Your task to perform on an android device: turn on notifications settings in the gmail app Image 0: 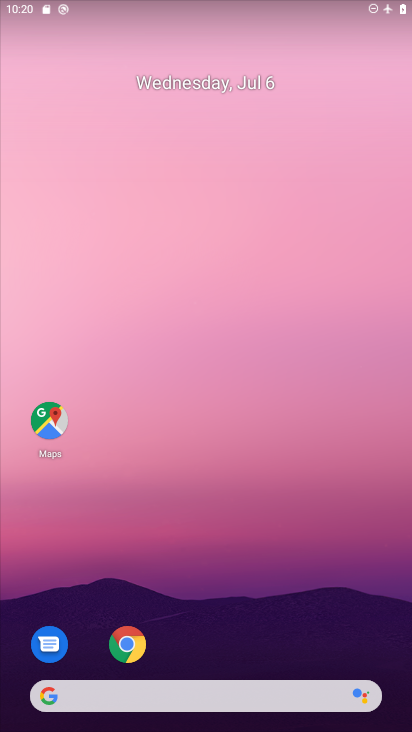
Step 0: drag from (206, 602) to (210, 200)
Your task to perform on an android device: turn on notifications settings in the gmail app Image 1: 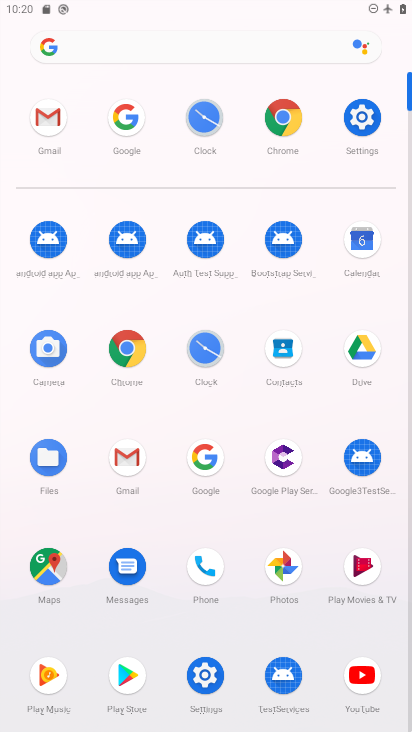
Step 1: click (137, 474)
Your task to perform on an android device: turn on notifications settings in the gmail app Image 2: 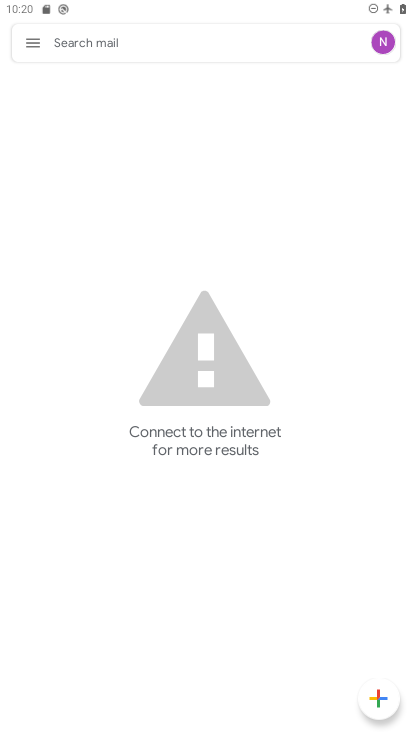
Step 2: click (33, 43)
Your task to perform on an android device: turn on notifications settings in the gmail app Image 3: 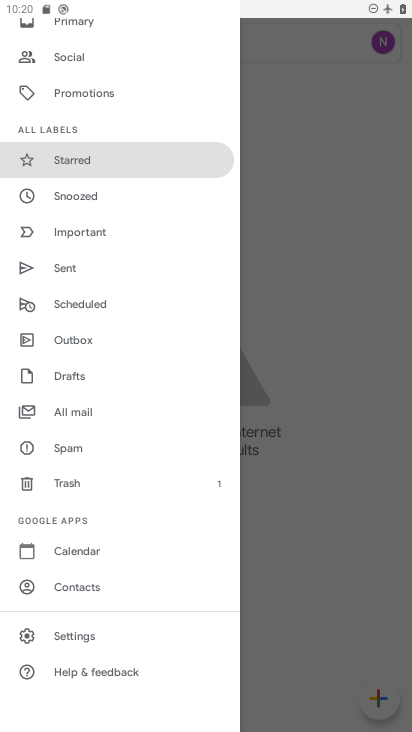
Step 3: click (73, 622)
Your task to perform on an android device: turn on notifications settings in the gmail app Image 4: 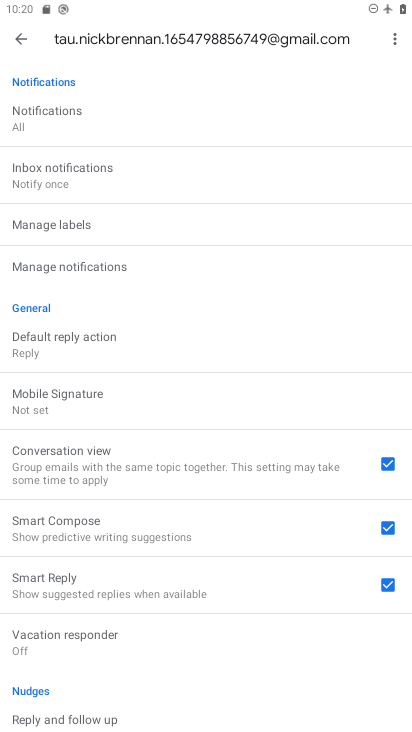
Step 4: click (156, 272)
Your task to perform on an android device: turn on notifications settings in the gmail app Image 5: 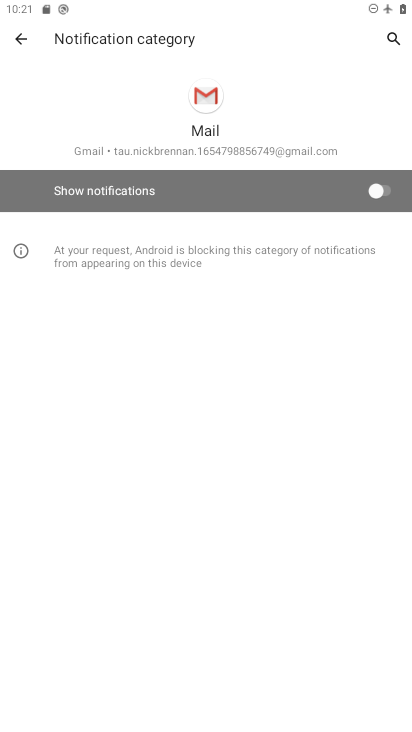
Step 5: click (390, 178)
Your task to perform on an android device: turn on notifications settings in the gmail app Image 6: 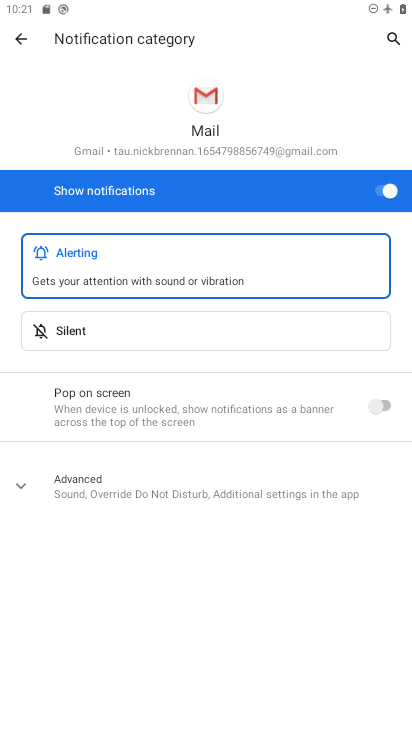
Step 6: task complete